Your task to perform on an android device: toggle airplane mode Image 0: 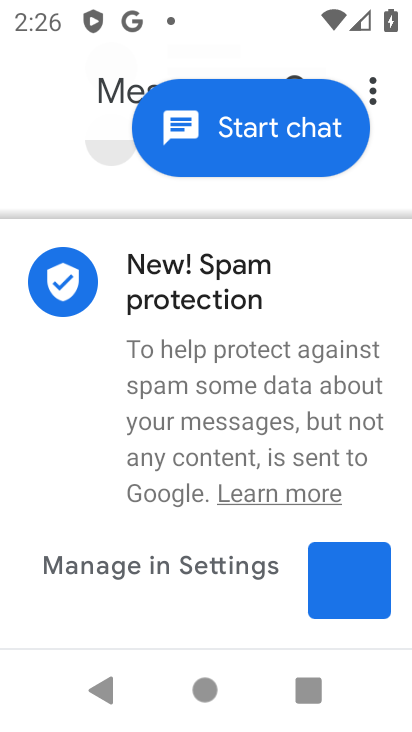
Step 0: press home button
Your task to perform on an android device: toggle airplane mode Image 1: 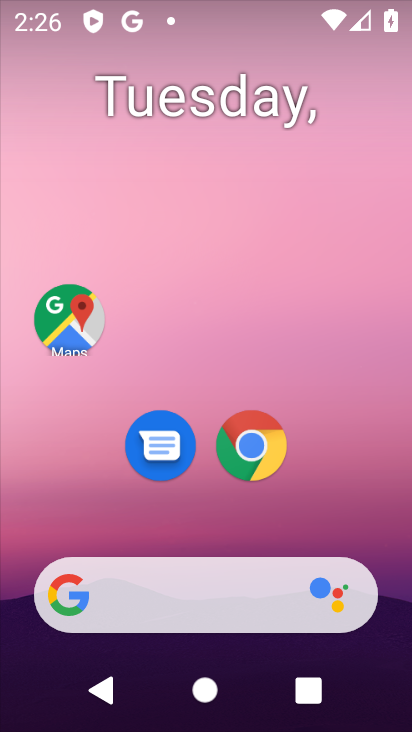
Step 1: drag from (235, 706) to (214, 50)
Your task to perform on an android device: toggle airplane mode Image 2: 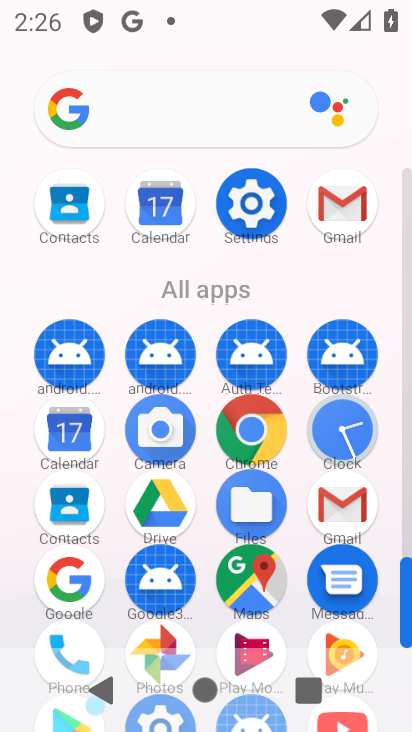
Step 2: click (244, 194)
Your task to perform on an android device: toggle airplane mode Image 3: 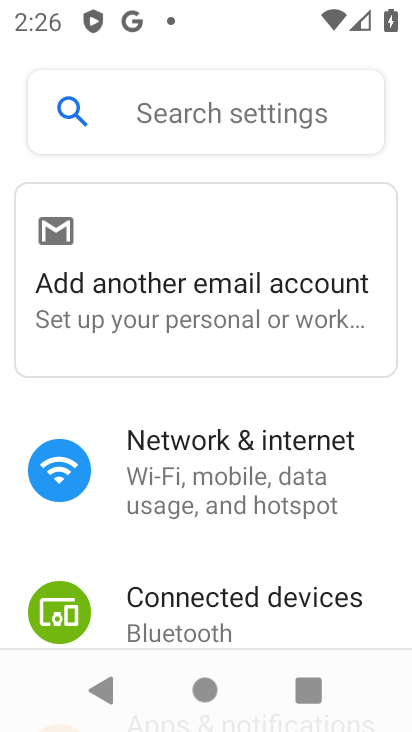
Step 3: click (260, 304)
Your task to perform on an android device: toggle airplane mode Image 4: 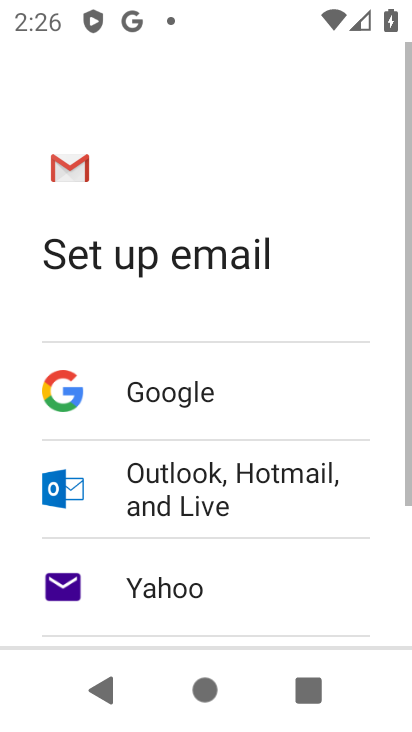
Step 4: press home button
Your task to perform on an android device: toggle airplane mode Image 5: 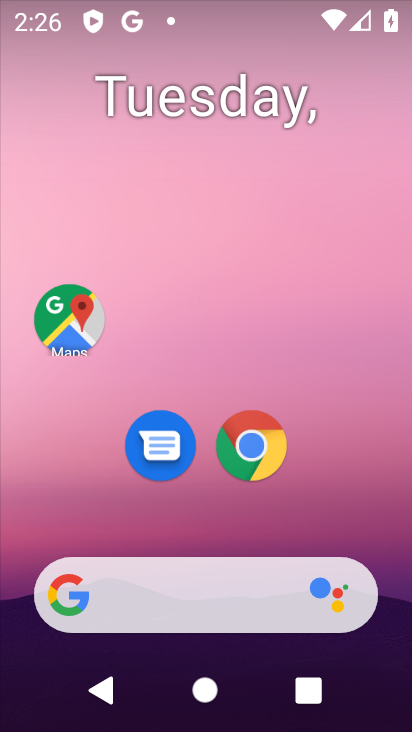
Step 5: drag from (160, 648) to (159, 121)
Your task to perform on an android device: toggle airplane mode Image 6: 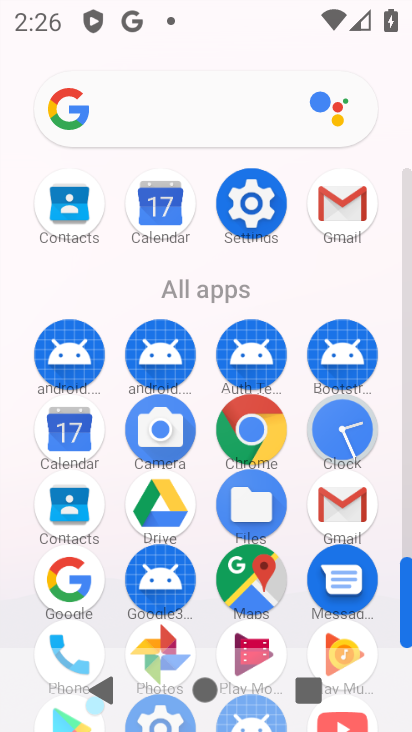
Step 6: click (261, 209)
Your task to perform on an android device: toggle airplane mode Image 7: 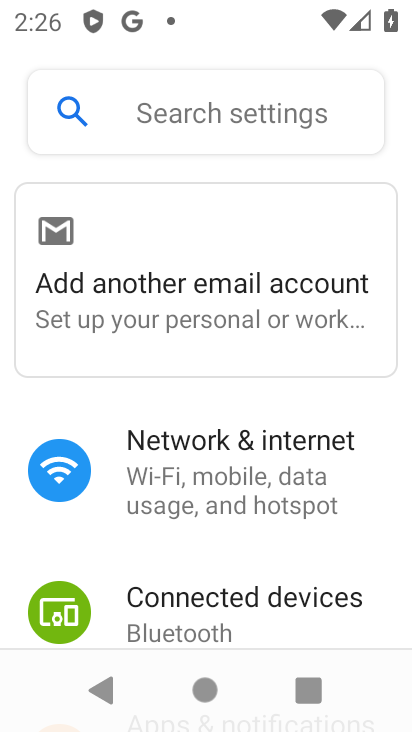
Step 7: click (245, 485)
Your task to perform on an android device: toggle airplane mode Image 8: 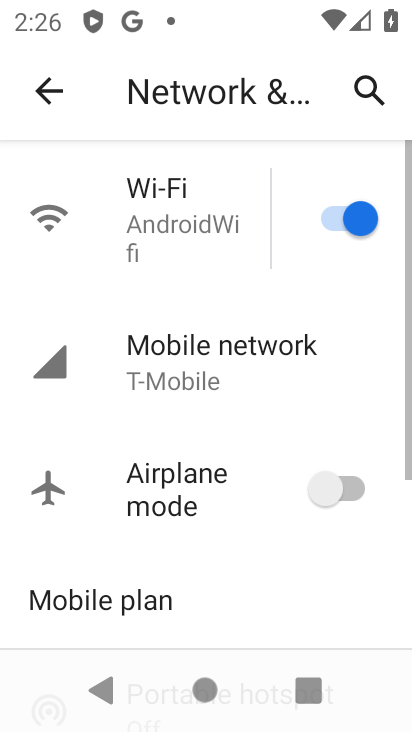
Step 8: click (346, 482)
Your task to perform on an android device: toggle airplane mode Image 9: 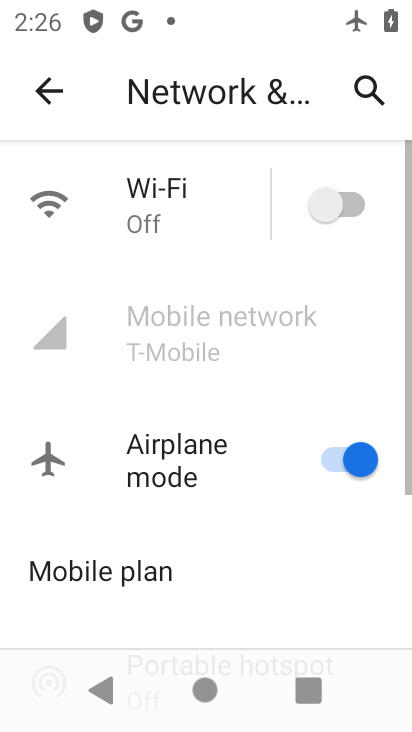
Step 9: task complete